Your task to perform on an android device: star an email in the gmail app Image 0: 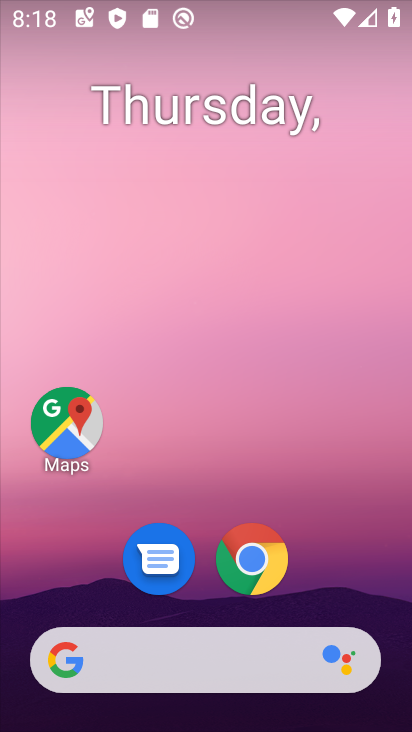
Step 0: drag from (201, 609) to (185, 9)
Your task to perform on an android device: star an email in the gmail app Image 1: 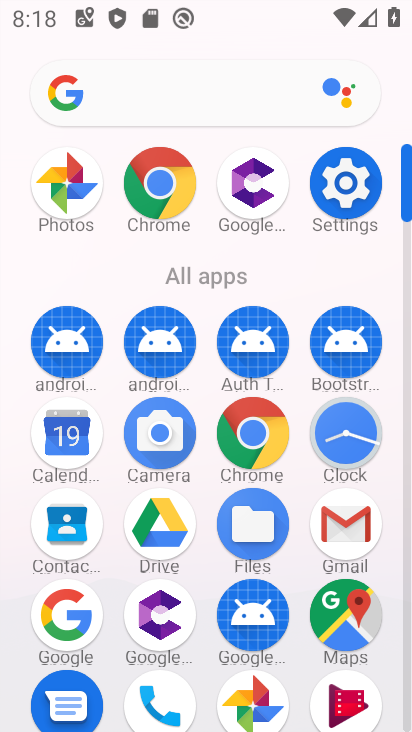
Step 1: click (348, 521)
Your task to perform on an android device: star an email in the gmail app Image 2: 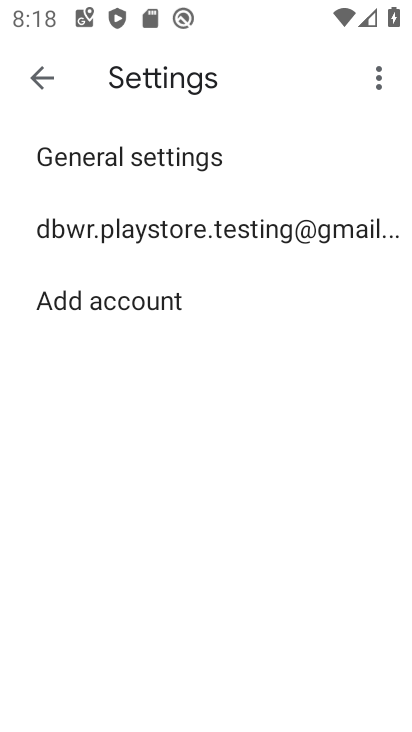
Step 2: click (39, 75)
Your task to perform on an android device: star an email in the gmail app Image 3: 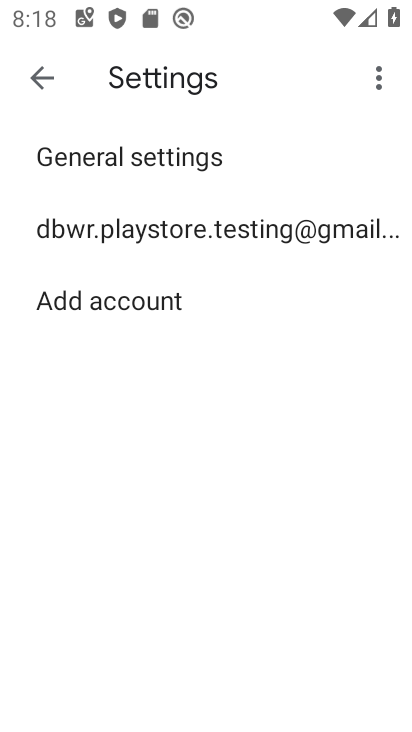
Step 3: click (32, 84)
Your task to perform on an android device: star an email in the gmail app Image 4: 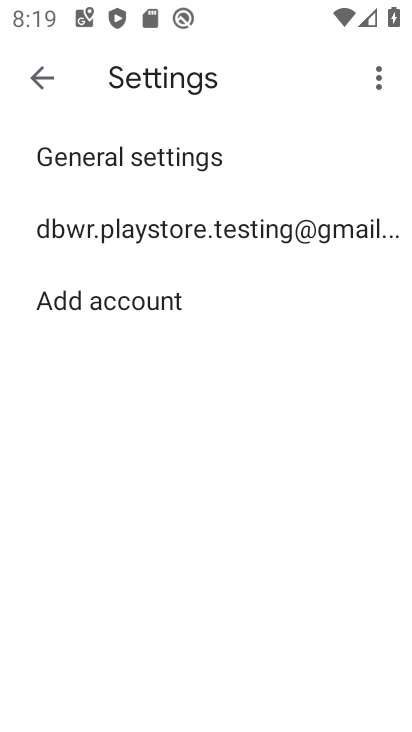
Step 4: click (32, 70)
Your task to perform on an android device: star an email in the gmail app Image 5: 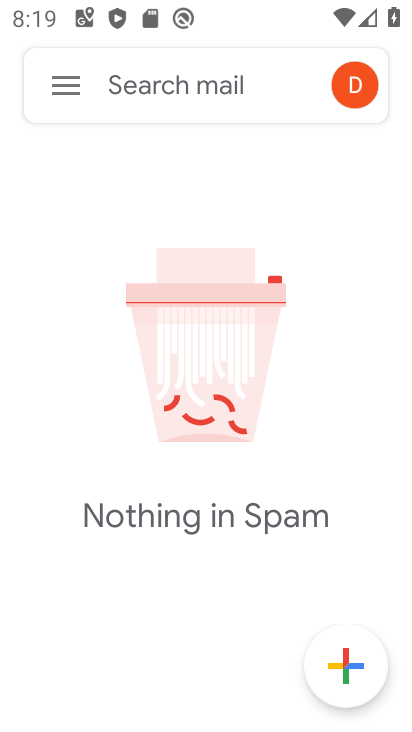
Step 5: click (63, 90)
Your task to perform on an android device: star an email in the gmail app Image 6: 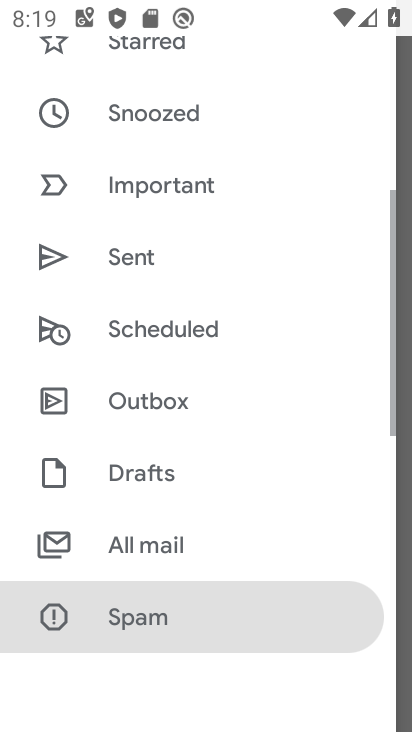
Step 6: drag from (108, 156) to (109, 704)
Your task to perform on an android device: star an email in the gmail app Image 7: 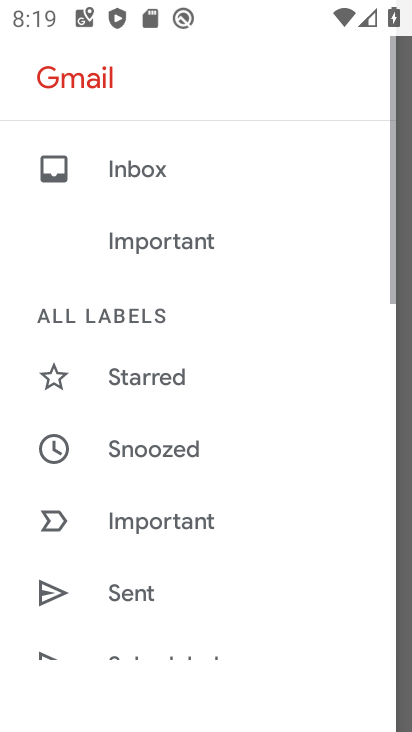
Step 7: click (149, 192)
Your task to perform on an android device: star an email in the gmail app Image 8: 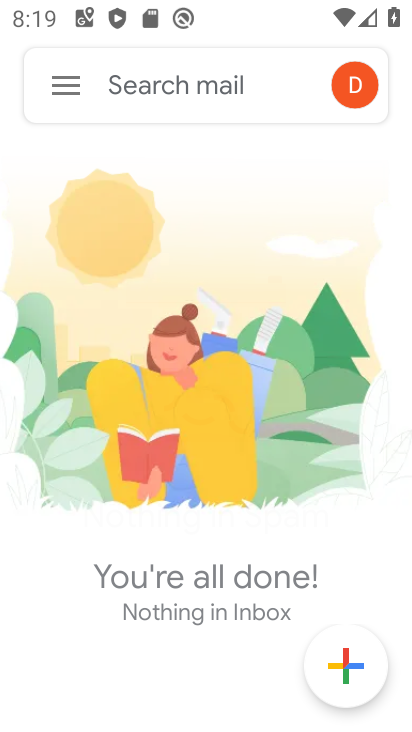
Step 8: task complete